Your task to perform on an android device: Open the map Image 0: 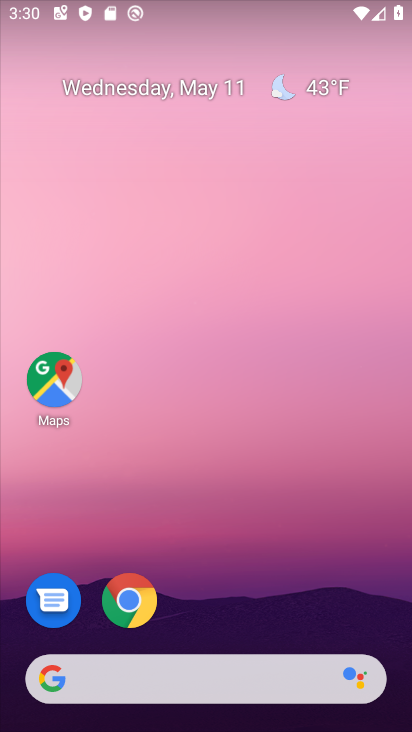
Step 0: click (59, 378)
Your task to perform on an android device: Open the map Image 1: 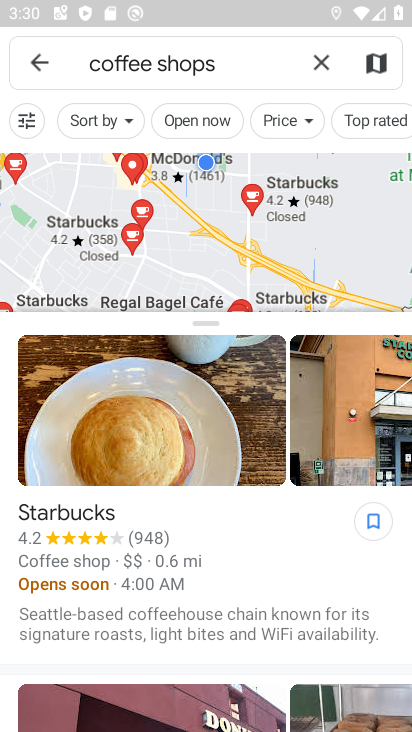
Step 1: task complete